Your task to perform on an android device: turn off location Image 0: 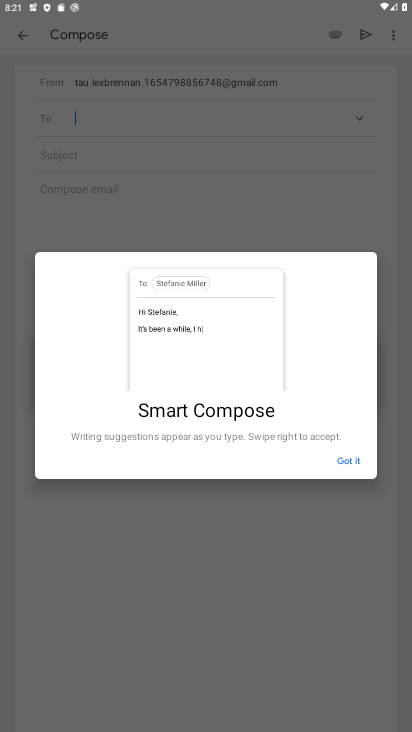
Step 0: press home button
Your task to perform on an android device: turn off location Image 1: 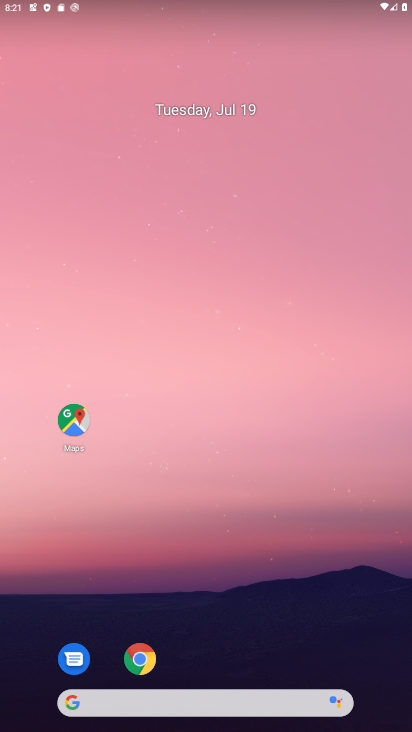
Step 1: drag from (184, 678) to (173, 281)
Your task to perform on an android device: turn off location Image 2: 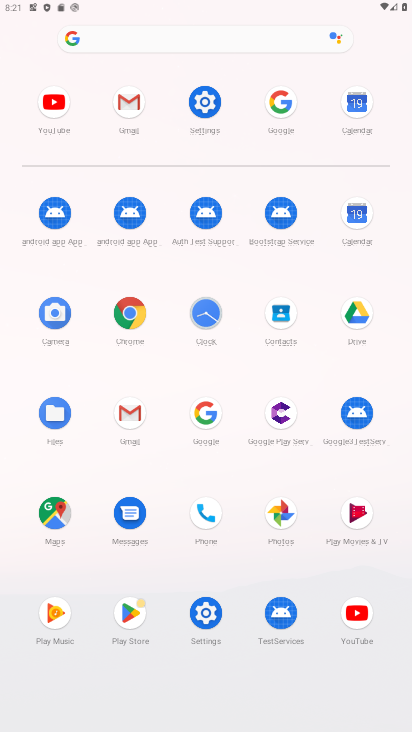
Step 2: click (196, 614)
Your task to perform on an android device: turn off location Image 3: 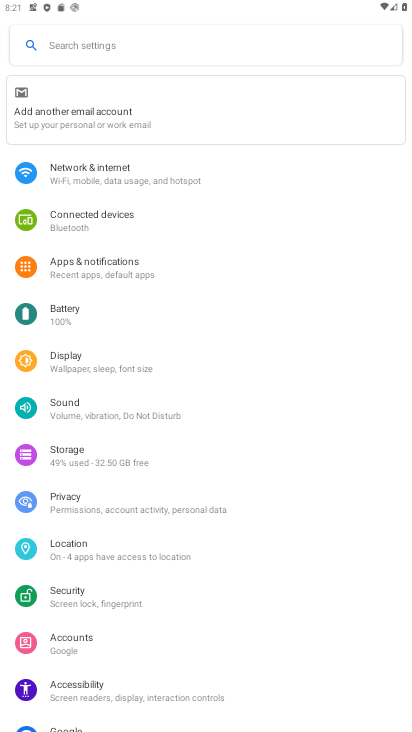
Step 3: click (79, 554)
Your task to perform on an android device: turn off location Image 4: 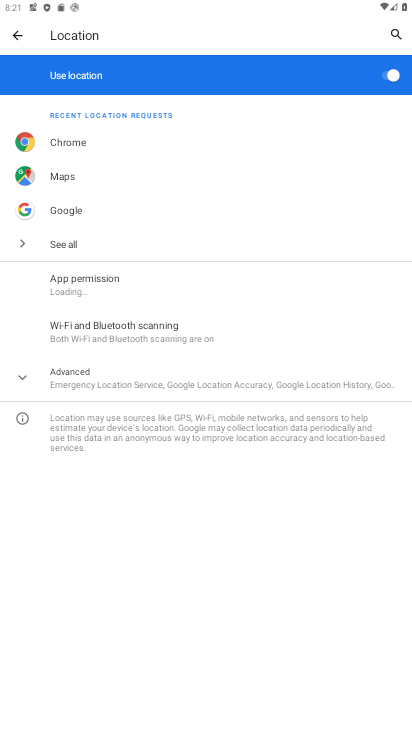
Step 4: click (391, 78)
Your task to perform on an android device: turn off location Image 5: 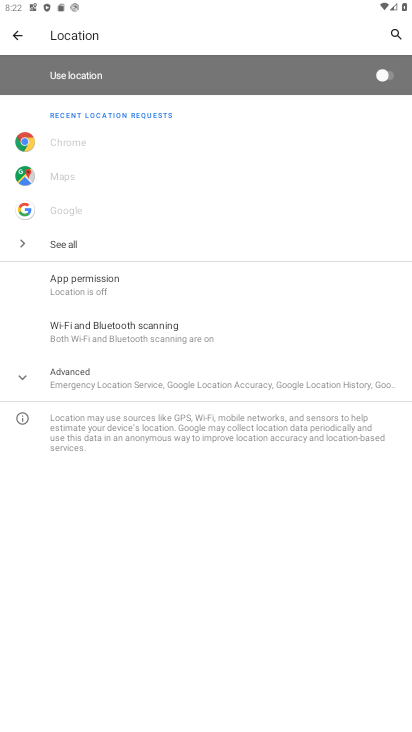
Step 5: task complete